Your task to perform on an android device: open chrome privacy settings Image 0: 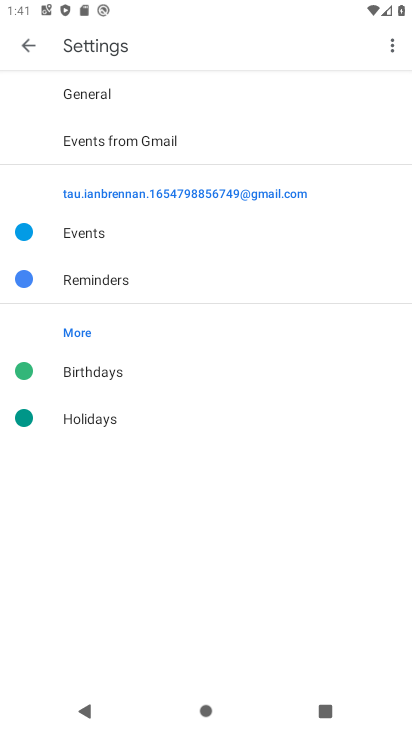
Step 0: press home button
Your task to perform on an android device: open chrome privacy settings Image 1: 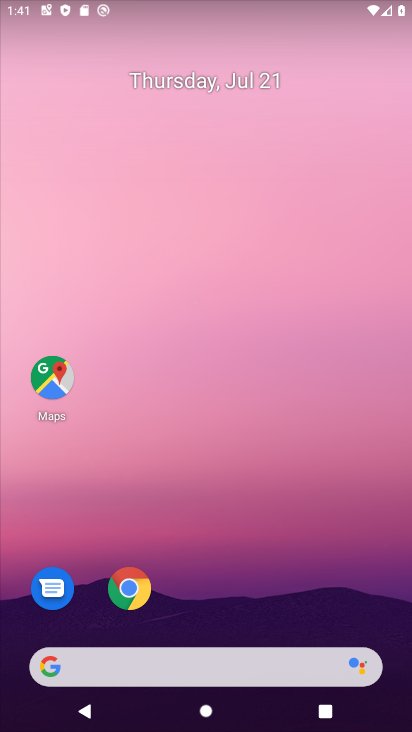
Step 1: click (117, 582)
Your task to perform on an android device: open chrome privacy settings Image 2: 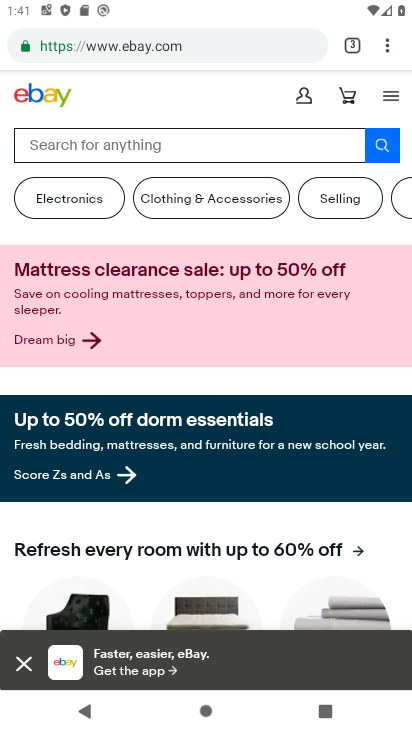
Step 2: drag from (387, 45) to (243, 552)
Your task to perform on an android device: open chrome privacy settings Image 3: 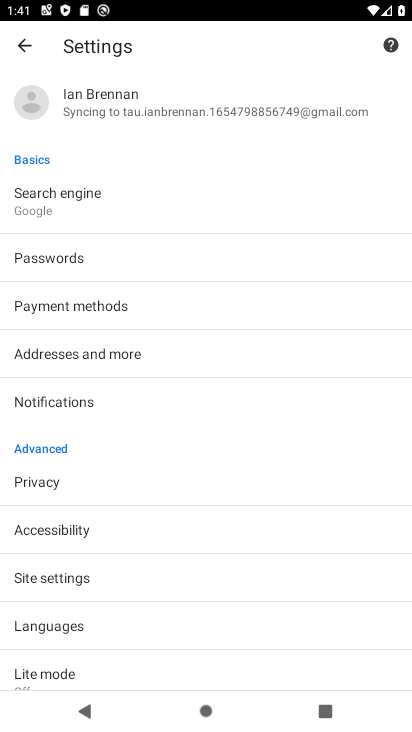
Step 3: click (52, 490)
Your task to perform on an android device: open chrome privacy settings Image 4: 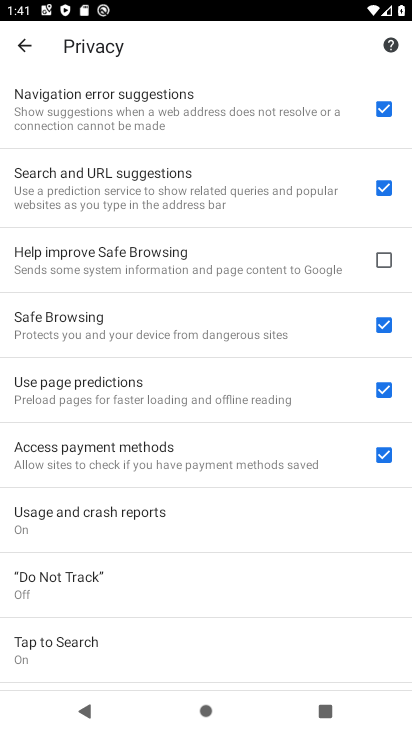
Step 4: task complete